Your task to perform on an android device: turn on notifications settings in the gmail app Image 0: 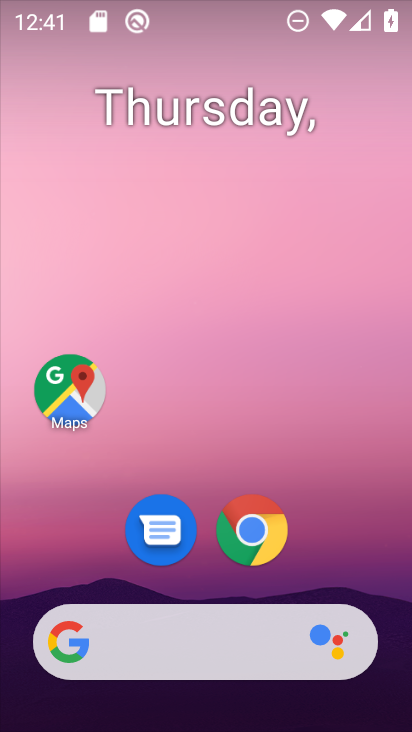
Step 0: drag from (195, 660) to (199, 51)
Your task to perform on an android device: turn on notifications settings in the gmail app Image 1: 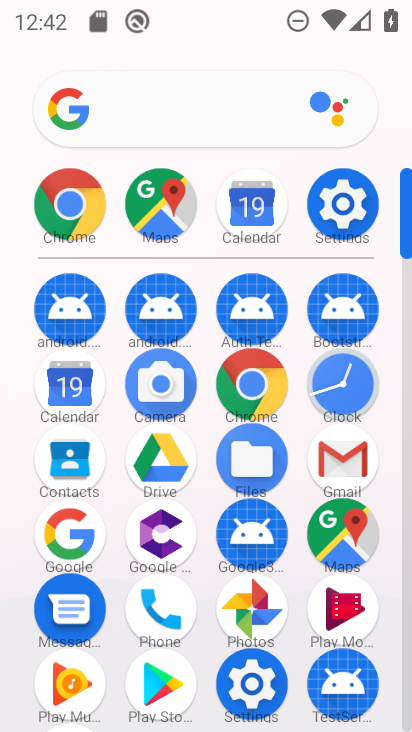
Step 1: click (350, 458)
Your task to perform on an android device: turn on notifications settings in the gmail app Image 2: 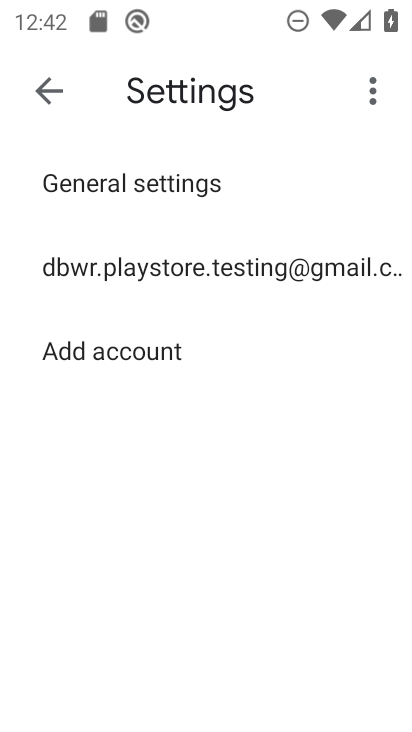
Step 2: click (165, 274)
Your task to perform on an android device: turn on notifications settings in the gmail app Image 3: 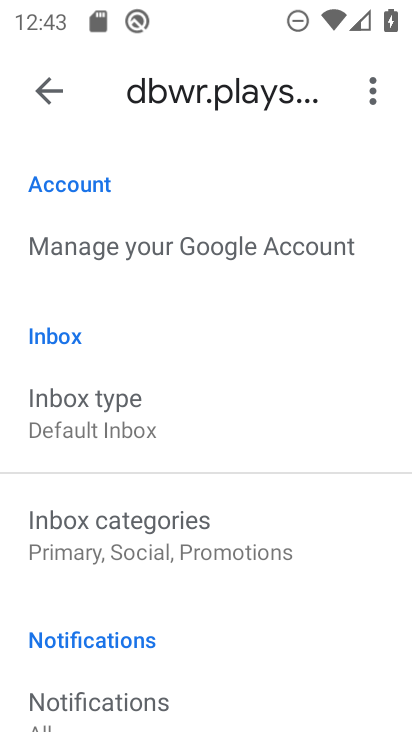
Step 3: drag from (155, 645) to (191, 5)
Your task to perform on an android device: turn on notifications settings in the gmail app Image 4: 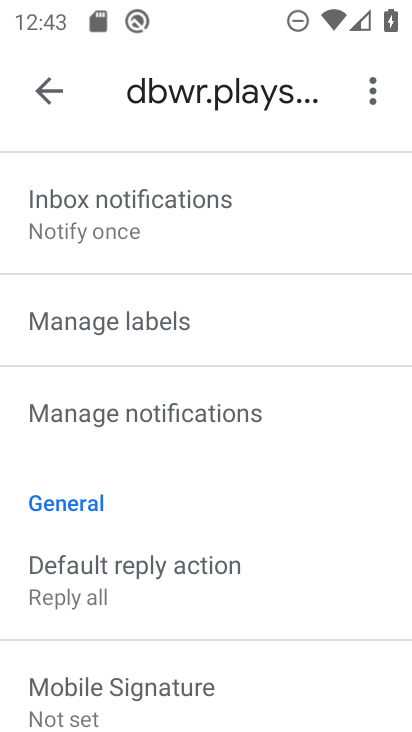
Step 4: click (131, 417)
Your task to perform on an android device: turn on notifications settings in the gmail app Image 5: 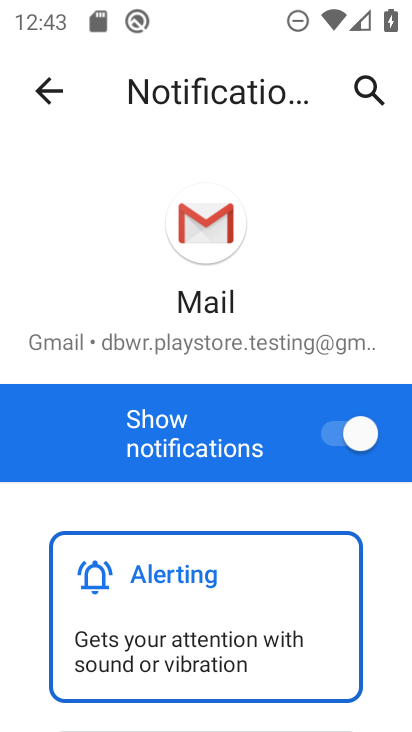
Step 5: task complete